Your task to perform on an android device: Open battery settings Image 0: 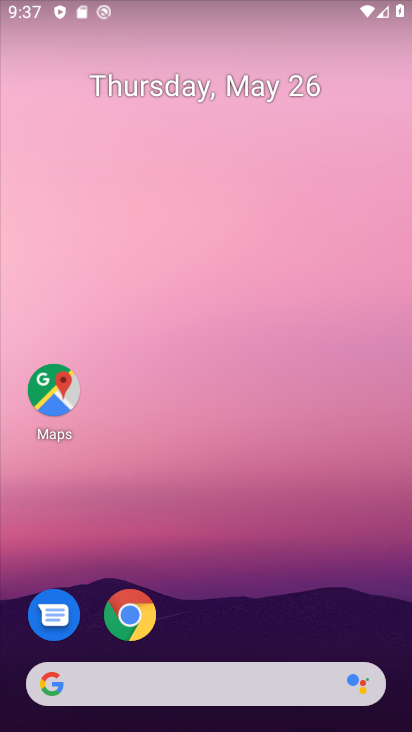
Step 0: drag from (311, 705) to (215, 142)
Your task to perform on an android device: Open battery settings Image 1: 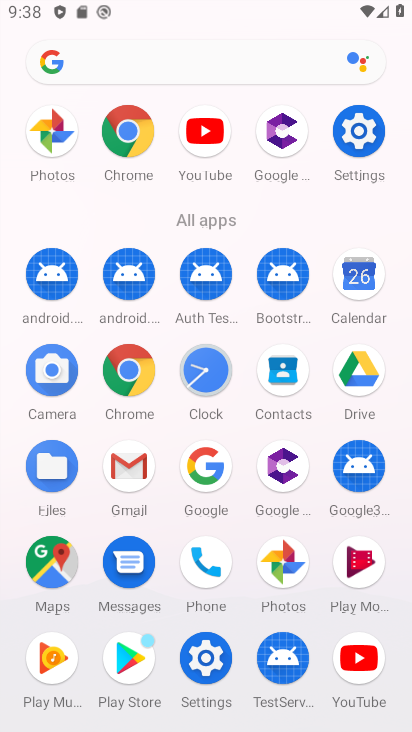
Step 1: click (337, 130)
Your task to perform on an android device: Open battery settings Image 2: 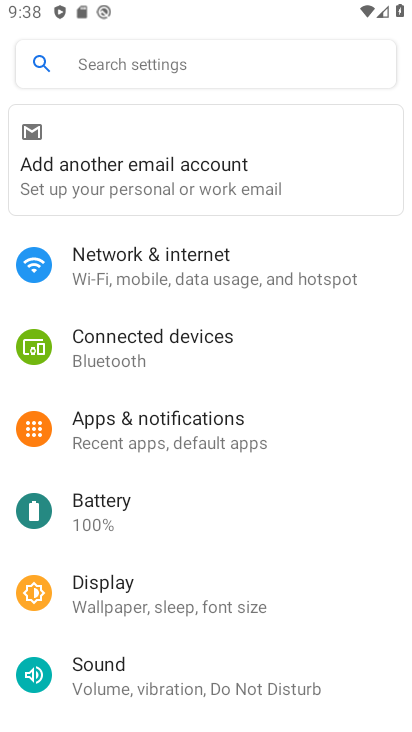
Step 2: click (167, 528)
Your task to perform on an android device: Open battery settings Image 3: 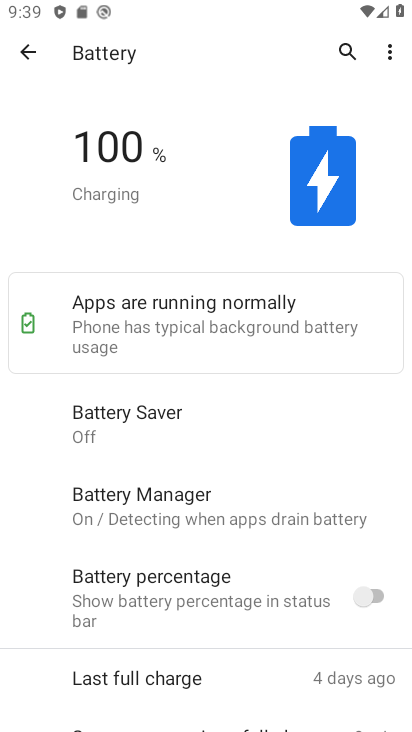
Step 3: task complete